Your task to perform on an android device: Open Chrome and go to settings Image 0: 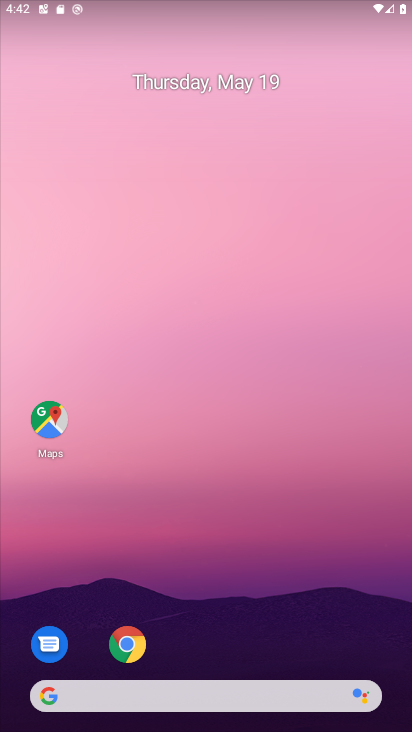
Step 0: click (136, 652)
Your task to perform on an android device: Open Chrome and go to settings Image 1: 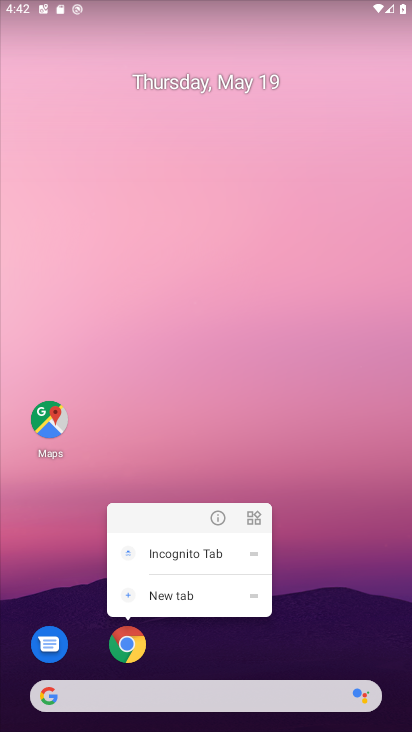
Step 1: click (136, 646)
Your task to perform on an android device: Open Chrome and go to settings Image 2: 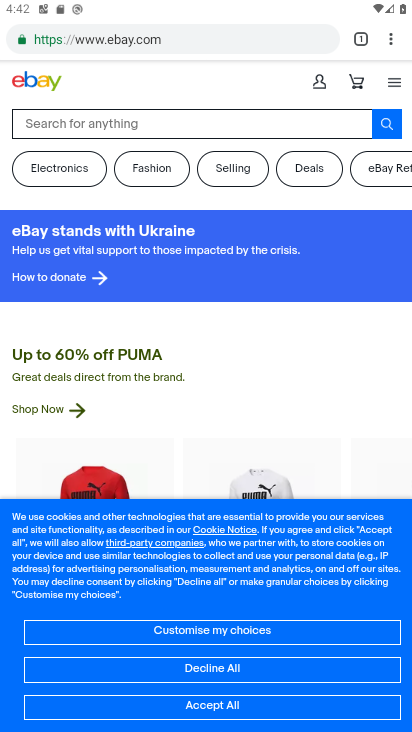
Step 2: task complete